Your task to perform on an android device: Go to Reddit.com Image 0: 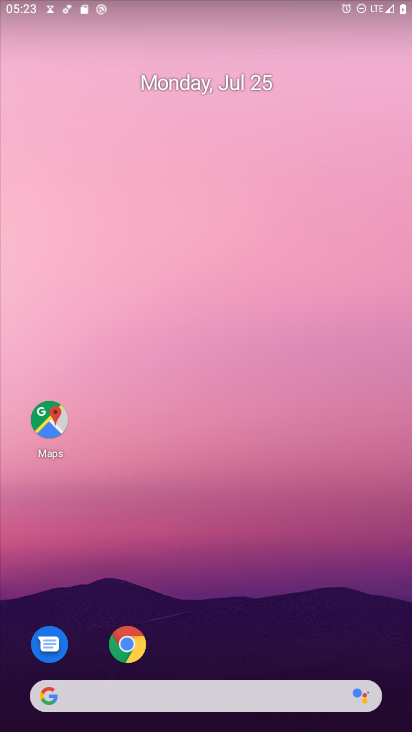
Step 0: press home button
Your task to perform on an android device: Go to Reddit.com Image 1: 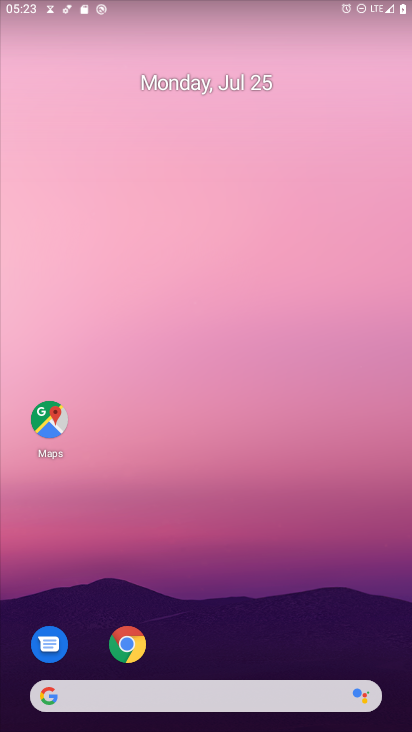
Step 1: click (44, 694)
Your task to perform on an android device: Go to Reddit.com Image 2: 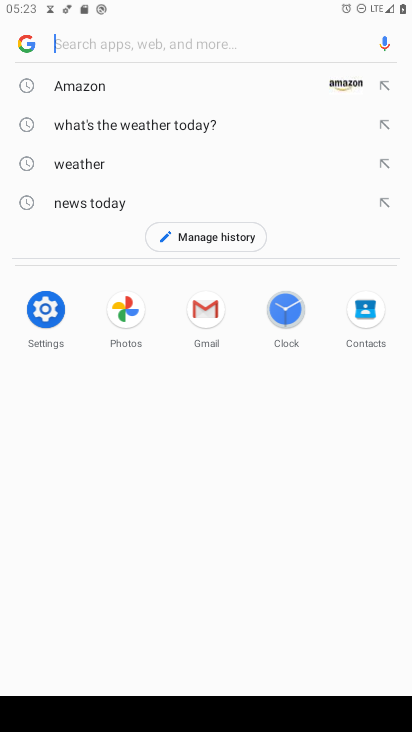
Step 2: type "Reddit.com"
Your task to perform on an android device: Go to Reddit.com Image 3: 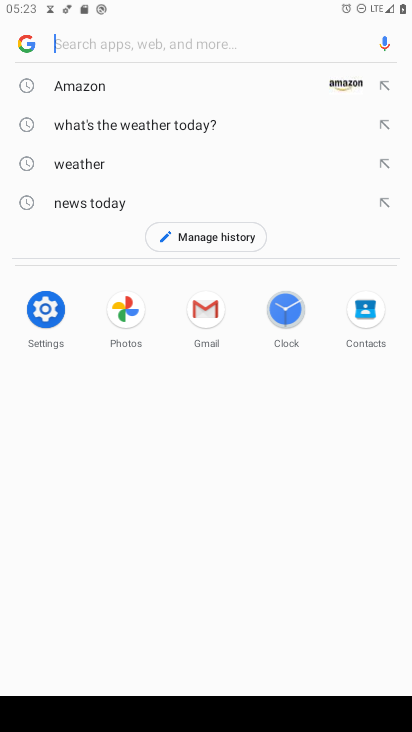
Step 3: click (81, 40)
Your task to perform on an android device: Go to Reddit.com Image 4: 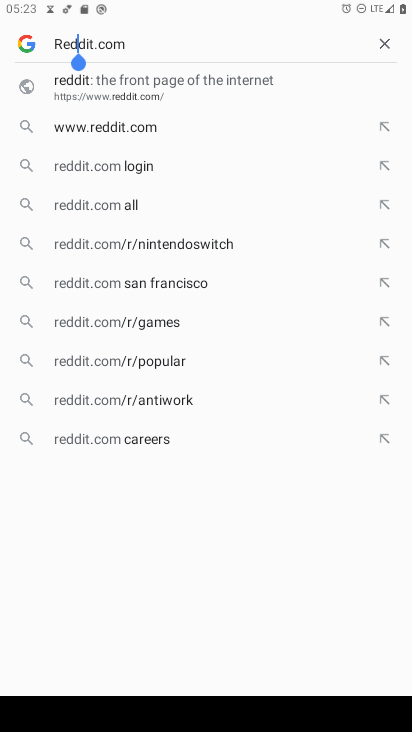
Step 4: press enter
Your task to perform on an android device: Go to Reddit.com Image 5: 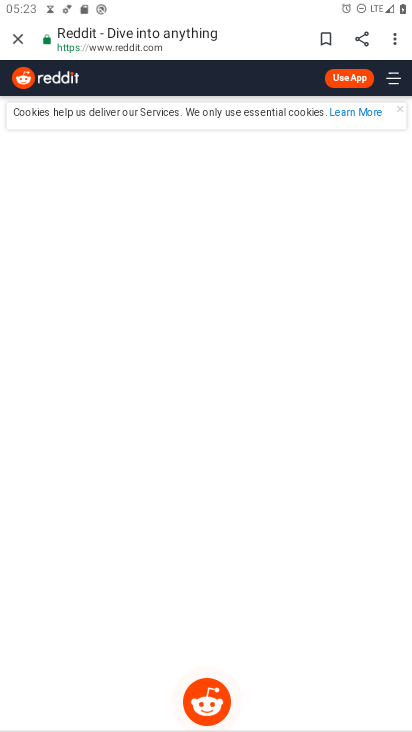
Step 5: task complete